Your task to perform on an android device: all mails in gmail Image 0: 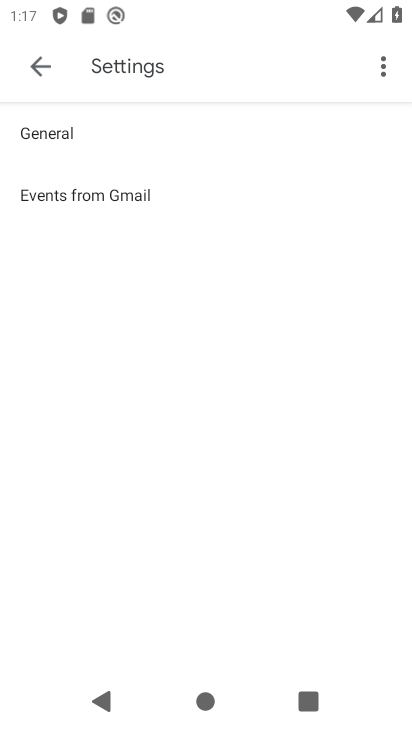
Step 0: press home button
Your task to perform on an android device: all mails in gmail Image 1: 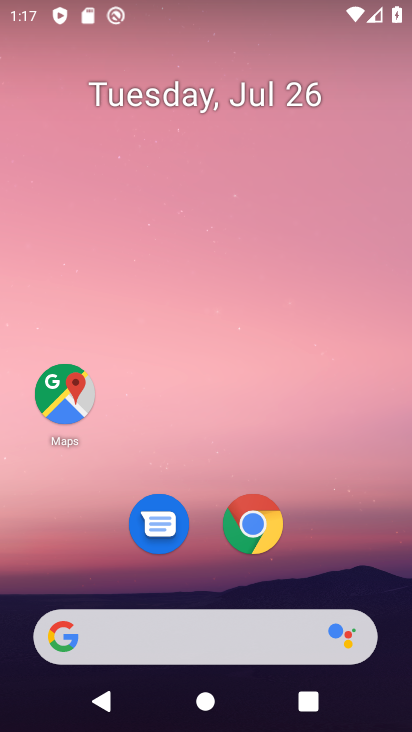
Step 1: drag from (184, 648) to (308, 219)
Your task to perform on an android device: all mails in gmail Image 2: 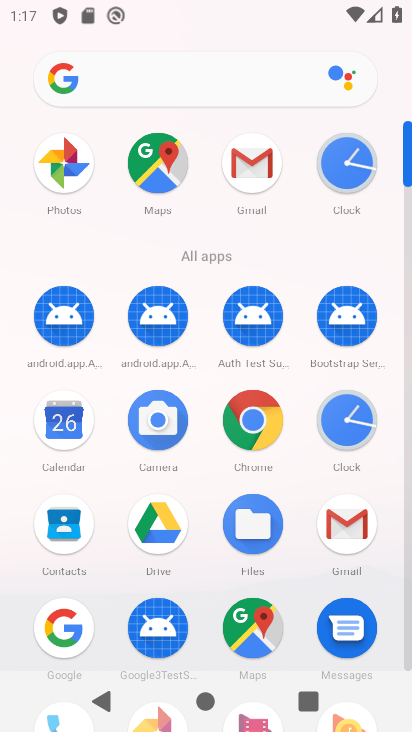
Step 2: click (253, 177)
Your task to perform on an android device: all mails in gmail Image 3: 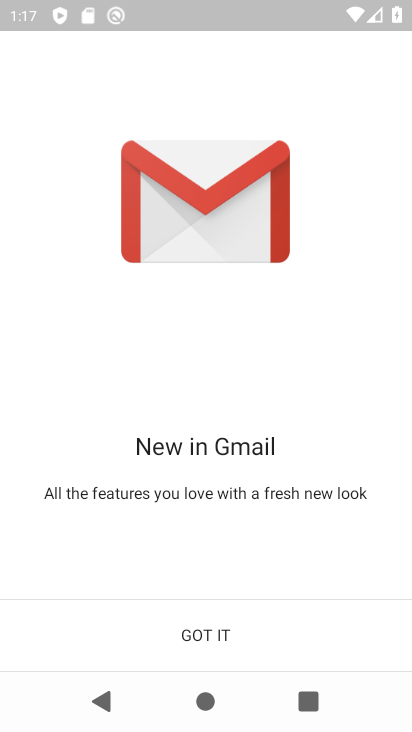
Step 3: click (203, 633)
Your task to perform on an android device: all mails in gmail Image 4: 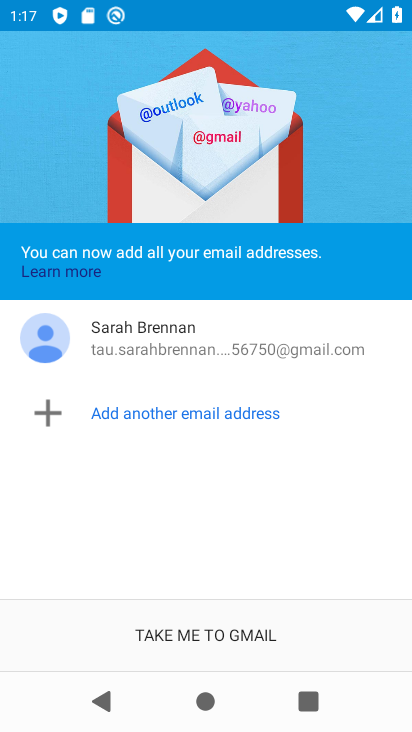
Step 4: click (203, 631)
Your task to perform on an android device: all mails in gmail Image 5: 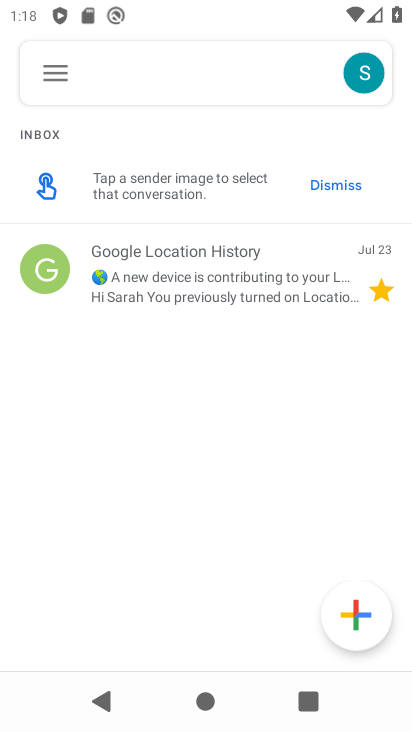
Step 5: click (58, 72)
Your task to perform on an android device: all mails in gmail Image 6: 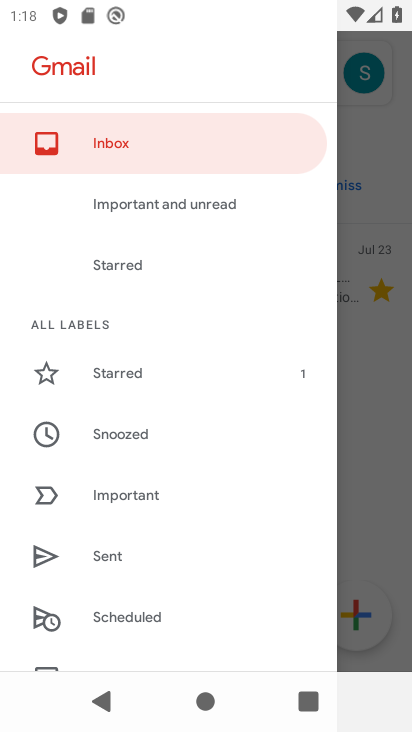
Step 6: drag from (165, 597) to (317, 311)
Your task to perform on an android device: all mails in gmail Image 7: 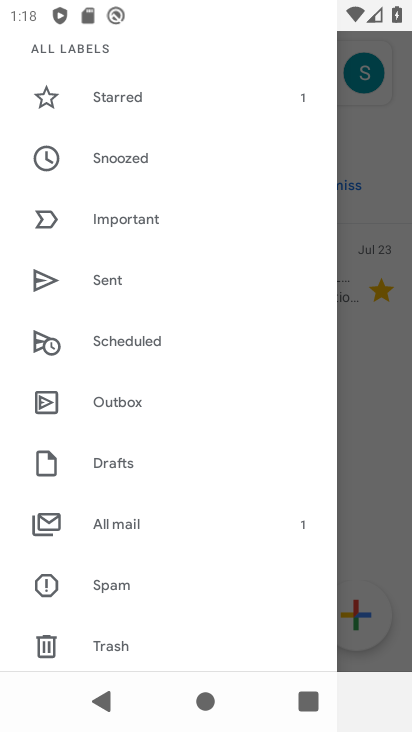
Step 7: click (138, 523)
Your task to perform on an android device: all mails in gmail Image 8: 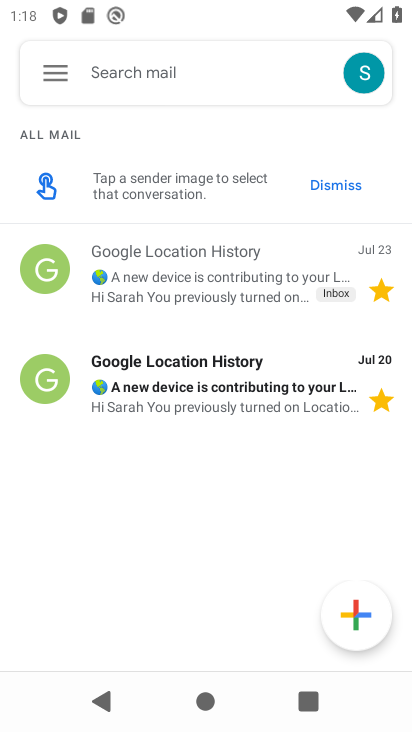
Step 8: task complete